Your task to perform on an android device: Clear all items from cart on ebay. Search for "asus rog" on ebay, select the first entry, and add it to the cart. Image 0: 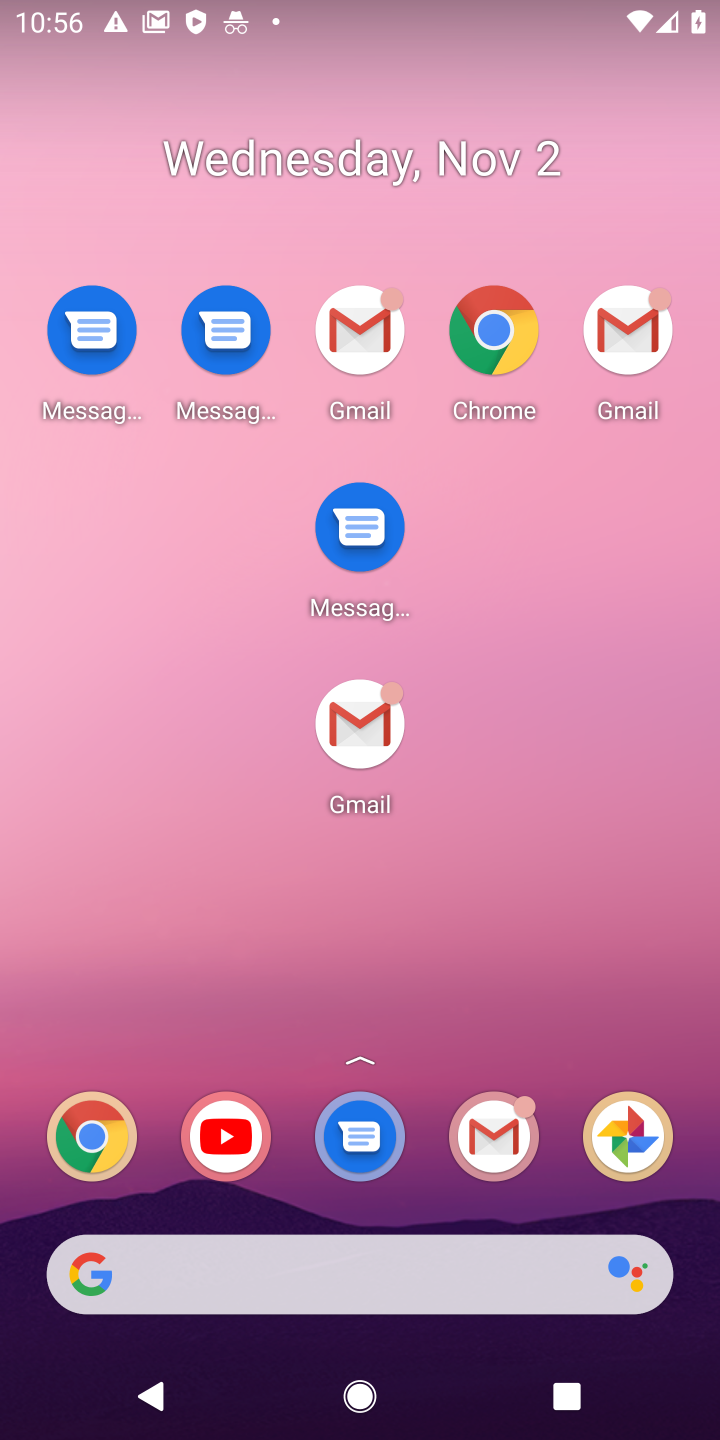
Step 0: drag from (278, 670) to (273, 462)
Your task to perform on an android device: Clear all items from cart on ebay. Search for "asus rog" on ebay, select the first entry, and add it to the cart. Image 1: 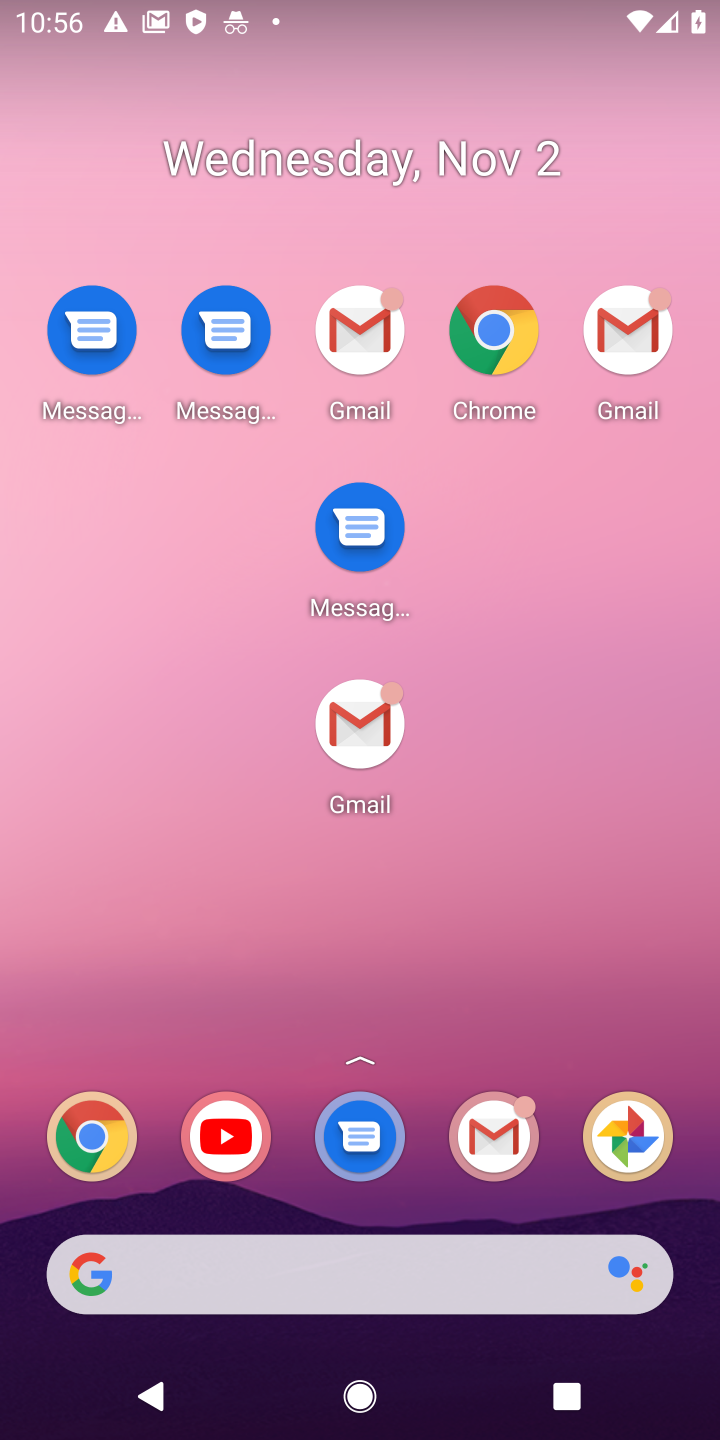
Step 1: drag from (425, 1279) to (442, 525)
Your task to perform on an android device: Clear all items from cart on ebay. Search for "asus rog" on ebay, select the first entry, and add it to the cart. Image 2: 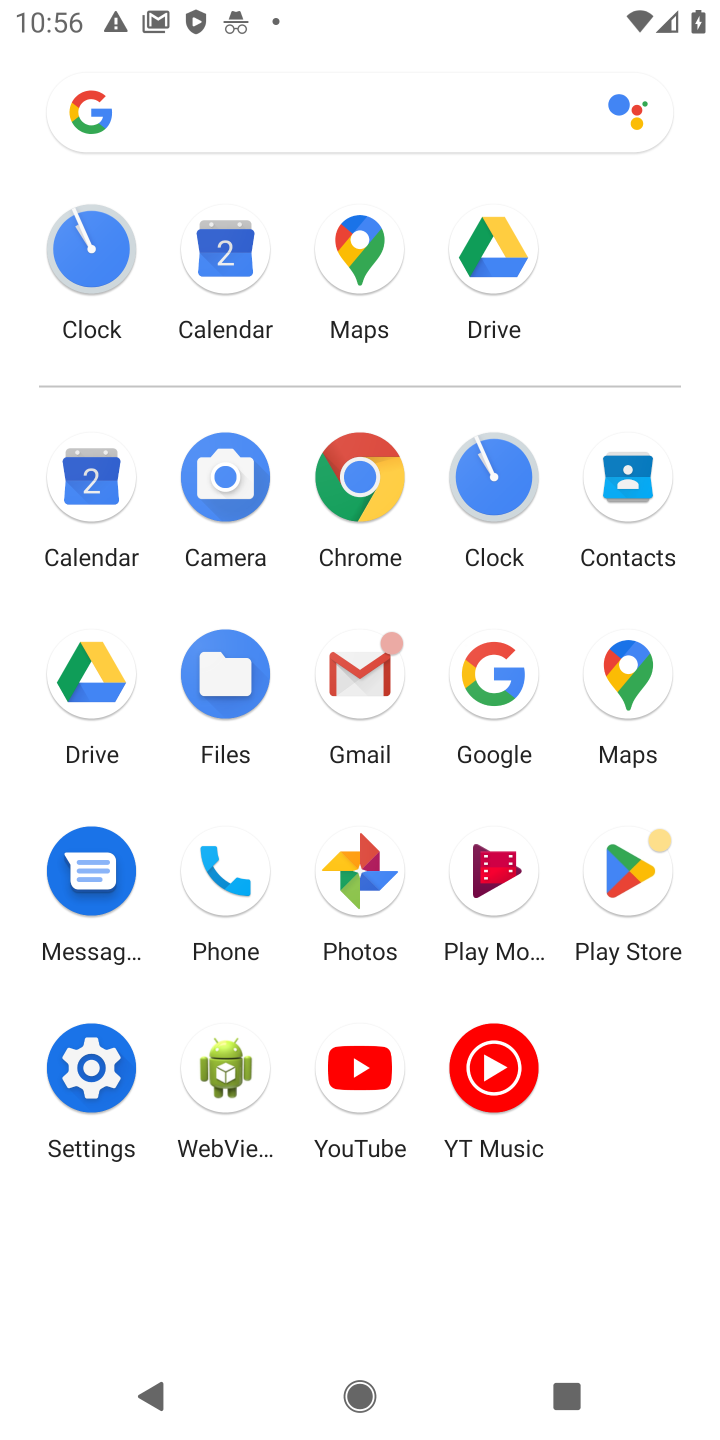
Step 2: click (471, 672)
Your task to perform on an android device: Clear all items from cart on ebay. Search for "asus rog" on ebay, select the first entry, and add it to the cart. Image 3: 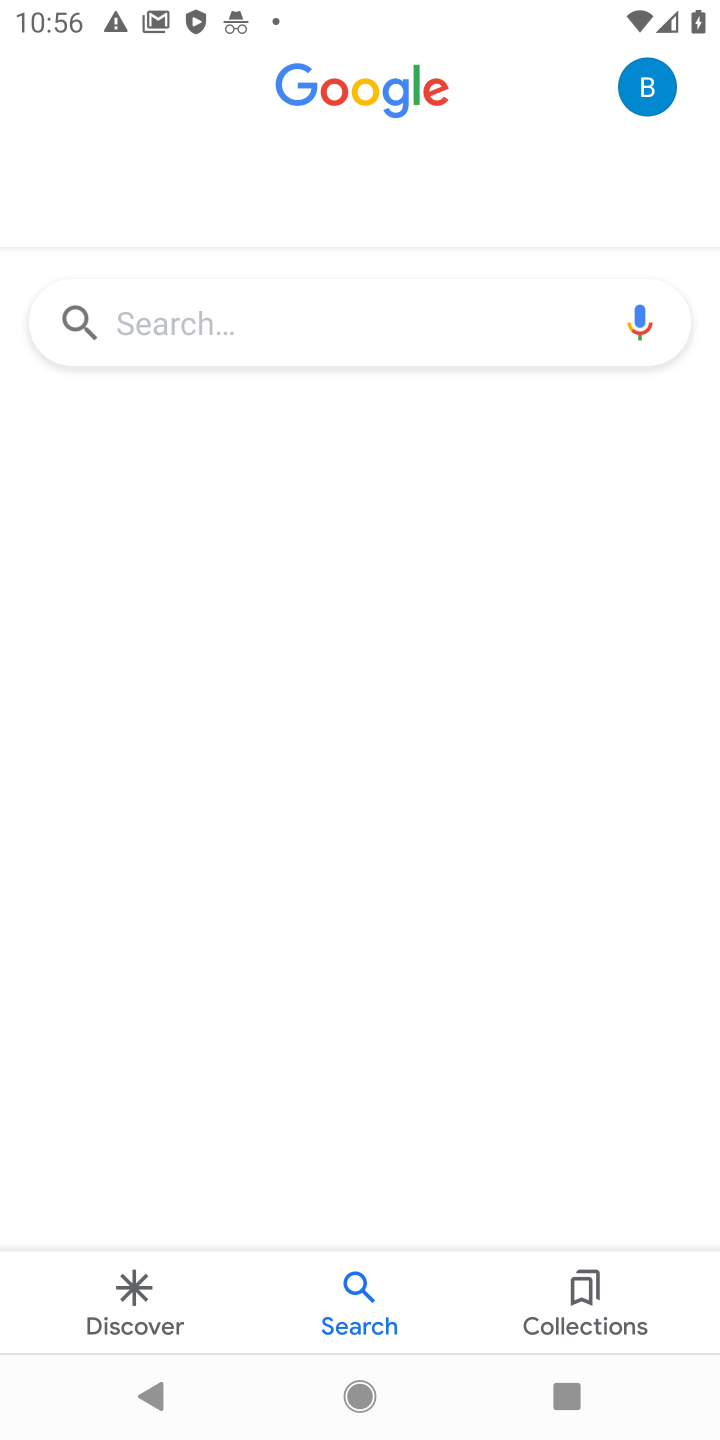
Step 3: click (284, 328)
Your task to perform on an android device: Clear all items from cart on ebay. Search for "asus rog" on ebay, select the first entry, and add it to the cart. Image 4: 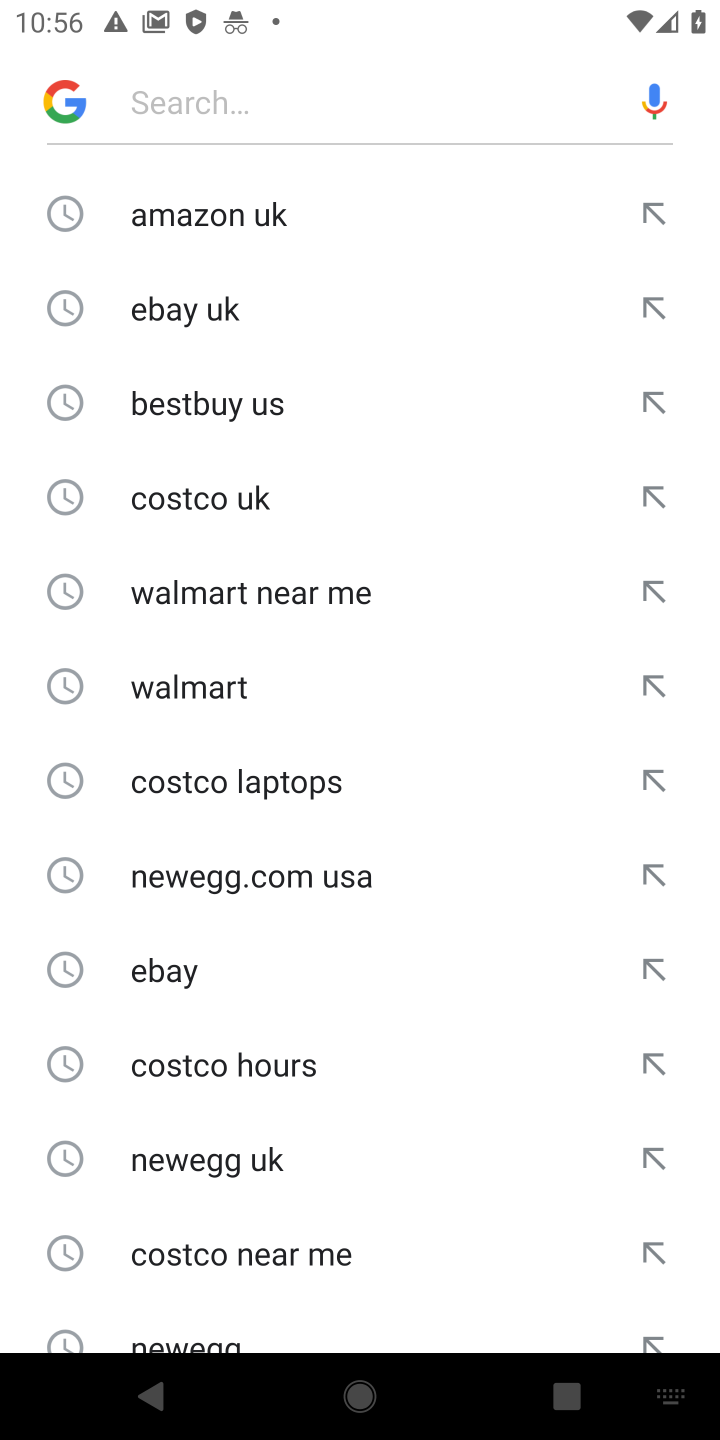
Step 4: click (155, 286)
Your task to perform on an android device: Clear all items from cart on ebay. Search for "asus rog" on ebay, select the first entry, and add it to the cart. Image 5: 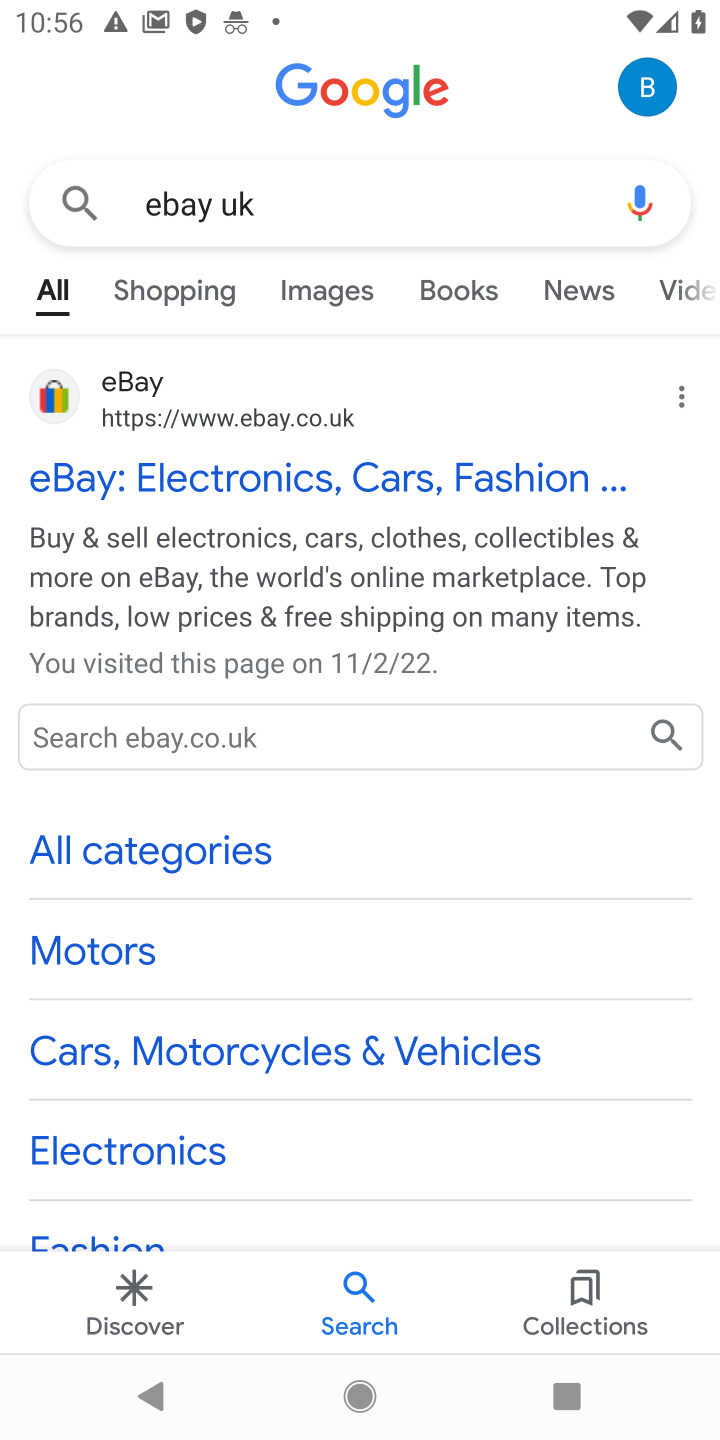
Step 5: click (45, 387)
Your task to perform on an android device: Clear all items from cart on ebay. Search for "asus rog" on ebay, select the first entry, and add it to the cart. Image 6: 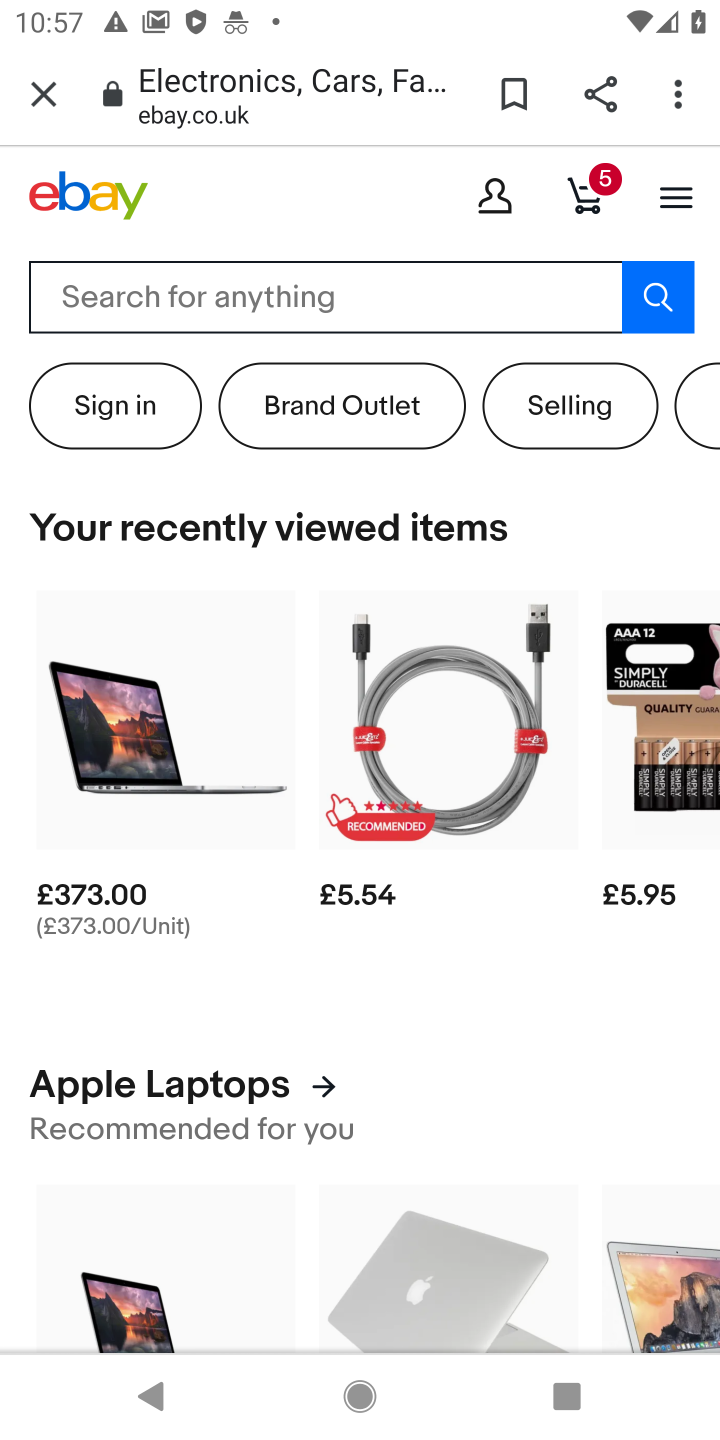
Step 6: click (357, 279)
Your task to perform on an android device: Clear all items from cart on ebay. Search for "asus rog" on ebay, select the first entry, and add it to the cart. Image 7: 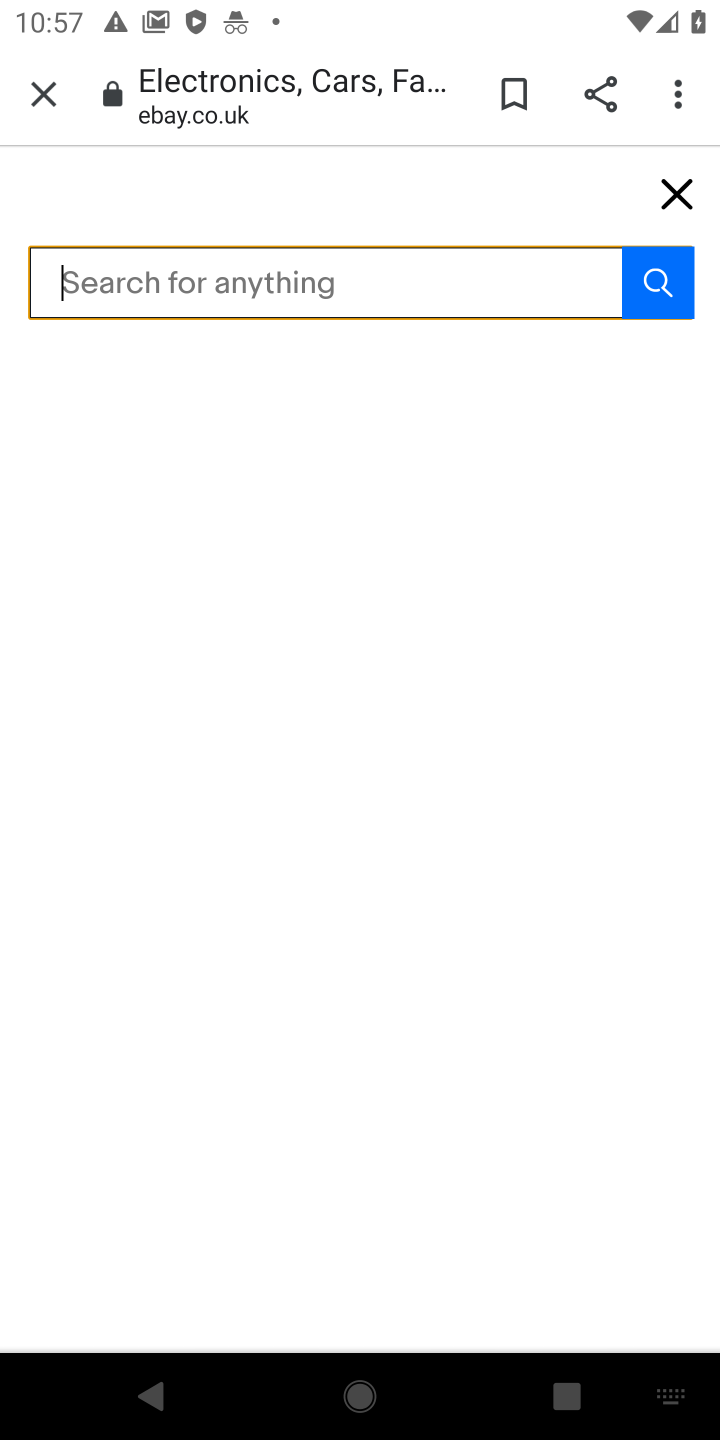
Step 7: type "asus rog "
Your task to perform on an android device: Clear all items from cart on ebay. Search for "asus rog" on ebay, select the first entry, and add it to the cart. Image 8: 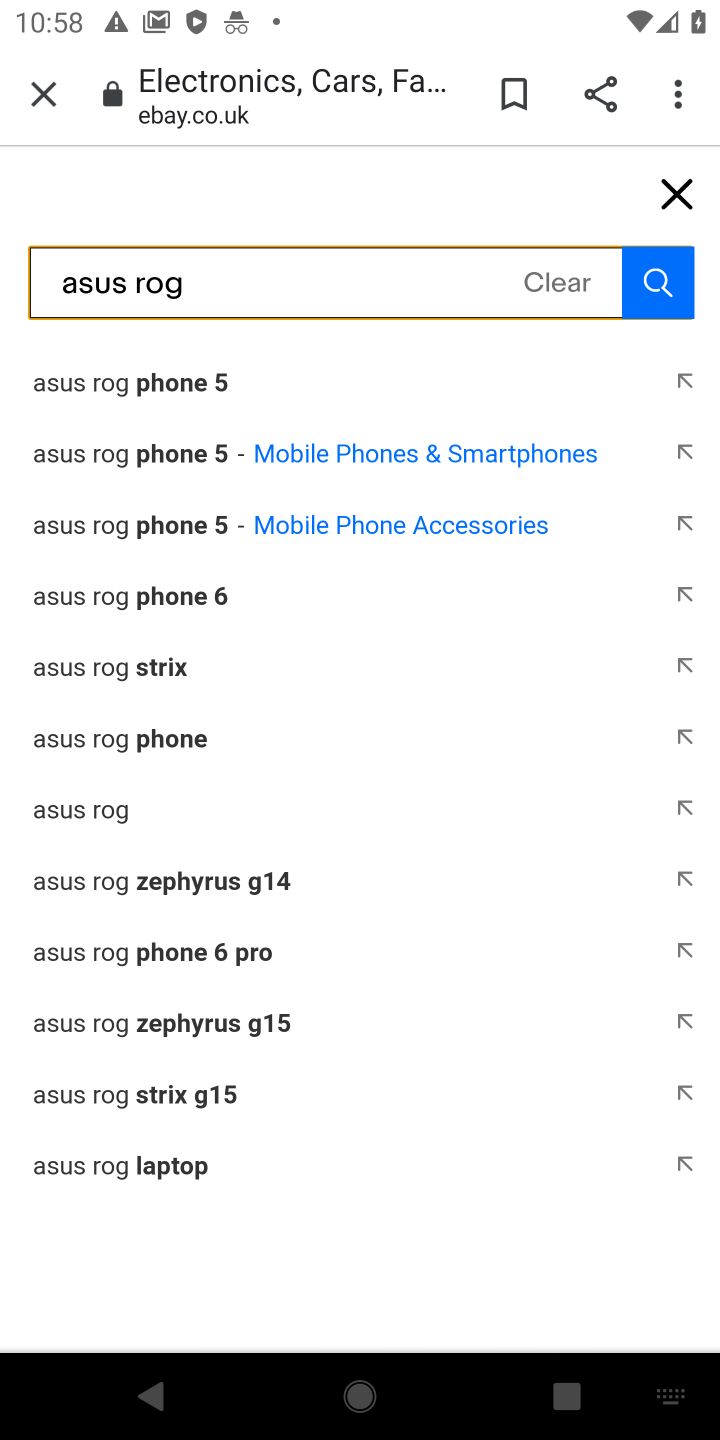
Step 8: click (135, 367)
Your task to perform on an android device: Clear all items from cart on ebay. Search for "asus rog" on ebay, select the first entry, and add it to the cart. Image 9: 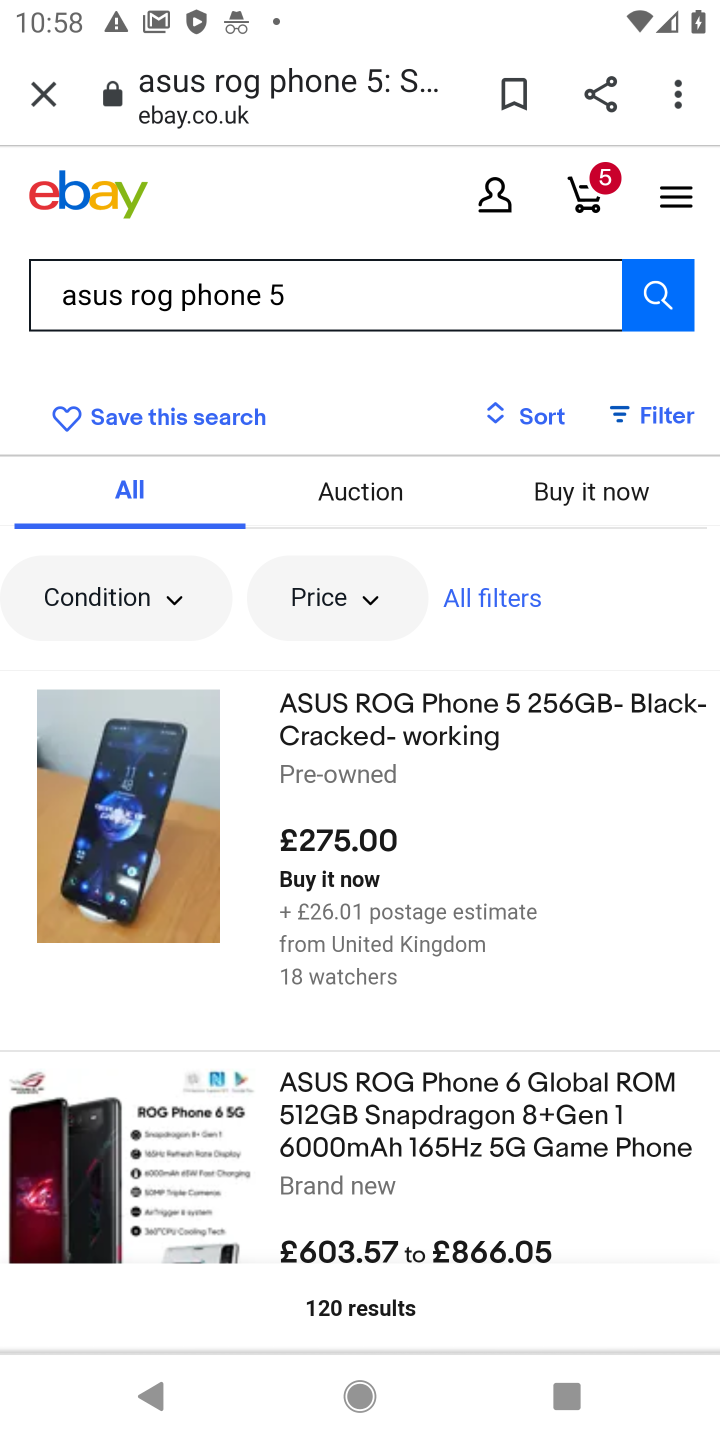
Step 9: drag from (471, 1123) to (471, 726)
Your task to perform on an android device: Clear all items from cart on ebay. Search for "asus rog" on ebay, select the first entry, and add it to the cart. Image 10: 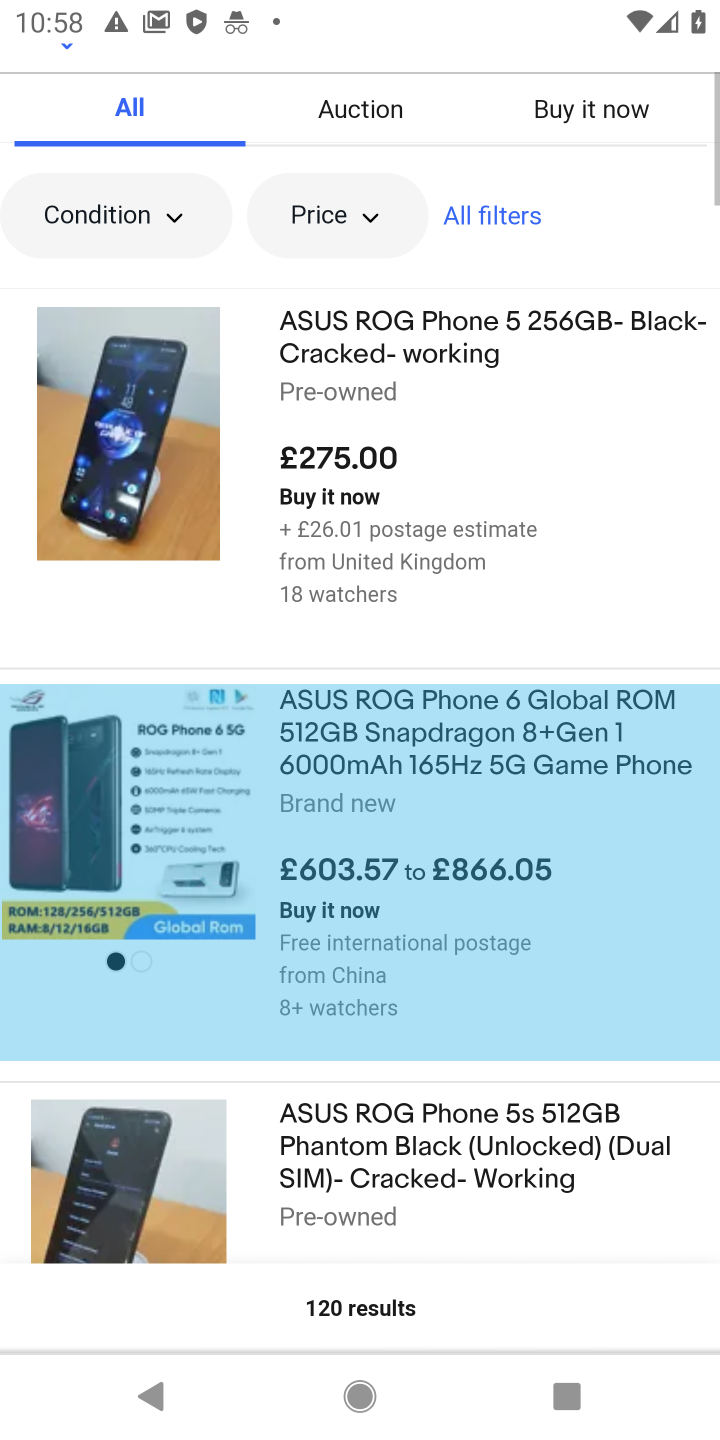
Step 10: click (375, 273)
Your task to perform on an android device: Clear all items from cart on ebay. Search for "asus rog" on ebay, select the first entry, and add it to the cart. Image 11: 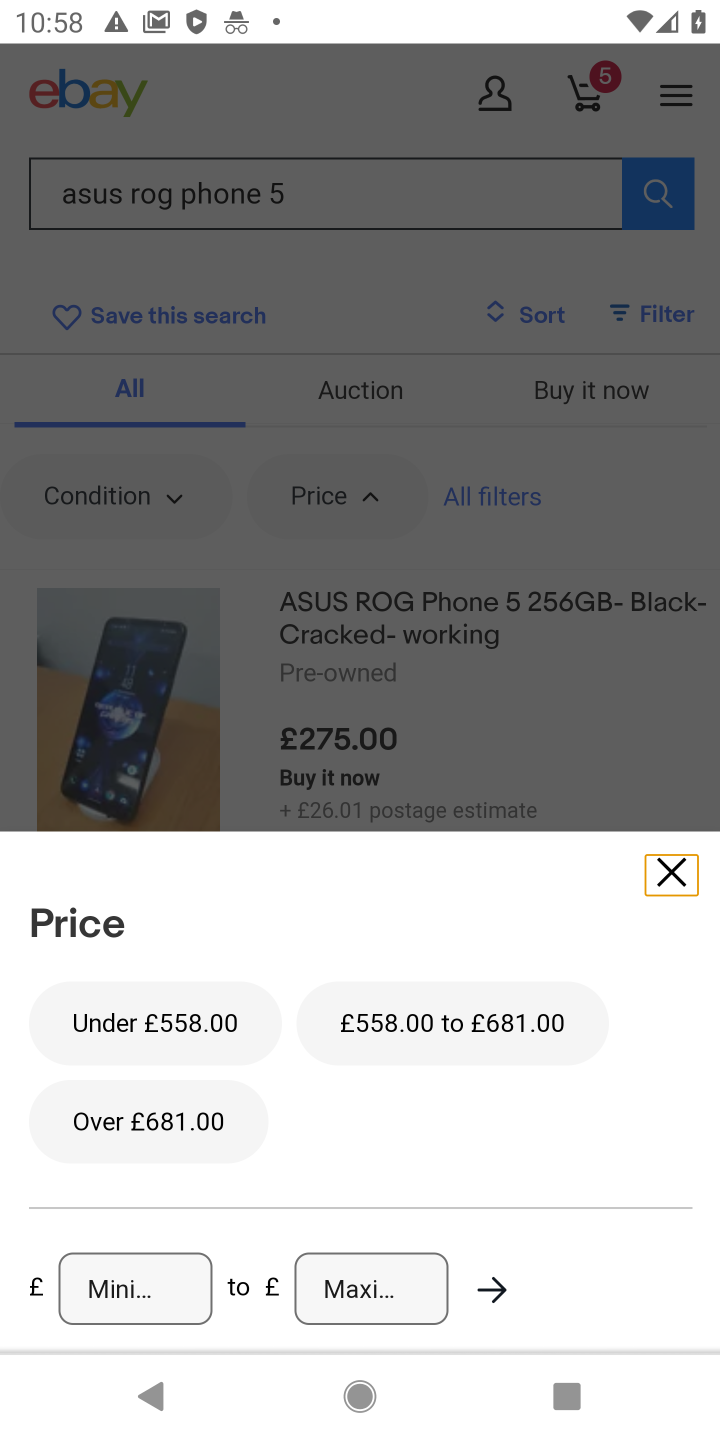
Step 11: click (667, 875)
Your task to perform on an android device: Clear all items from cart on ebay. Search for "asus rog" on ebay, select the first entry, and add it to the cart. Image 12: 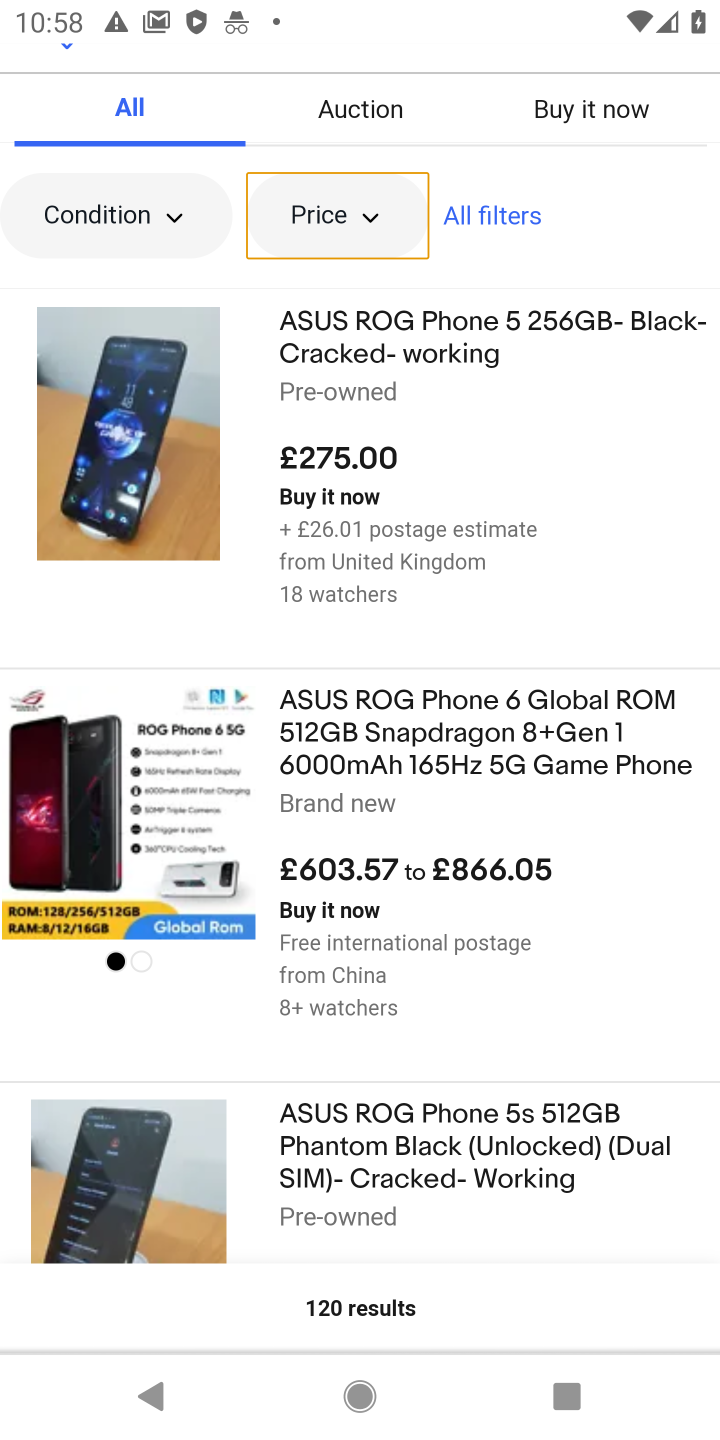
Step 12: click (518, 332)
Your task to perform on an android device: Clear all items from cart on ebay. Search for "asus rog" on ebay, select the first entry, and add it to the cart. Image 13: 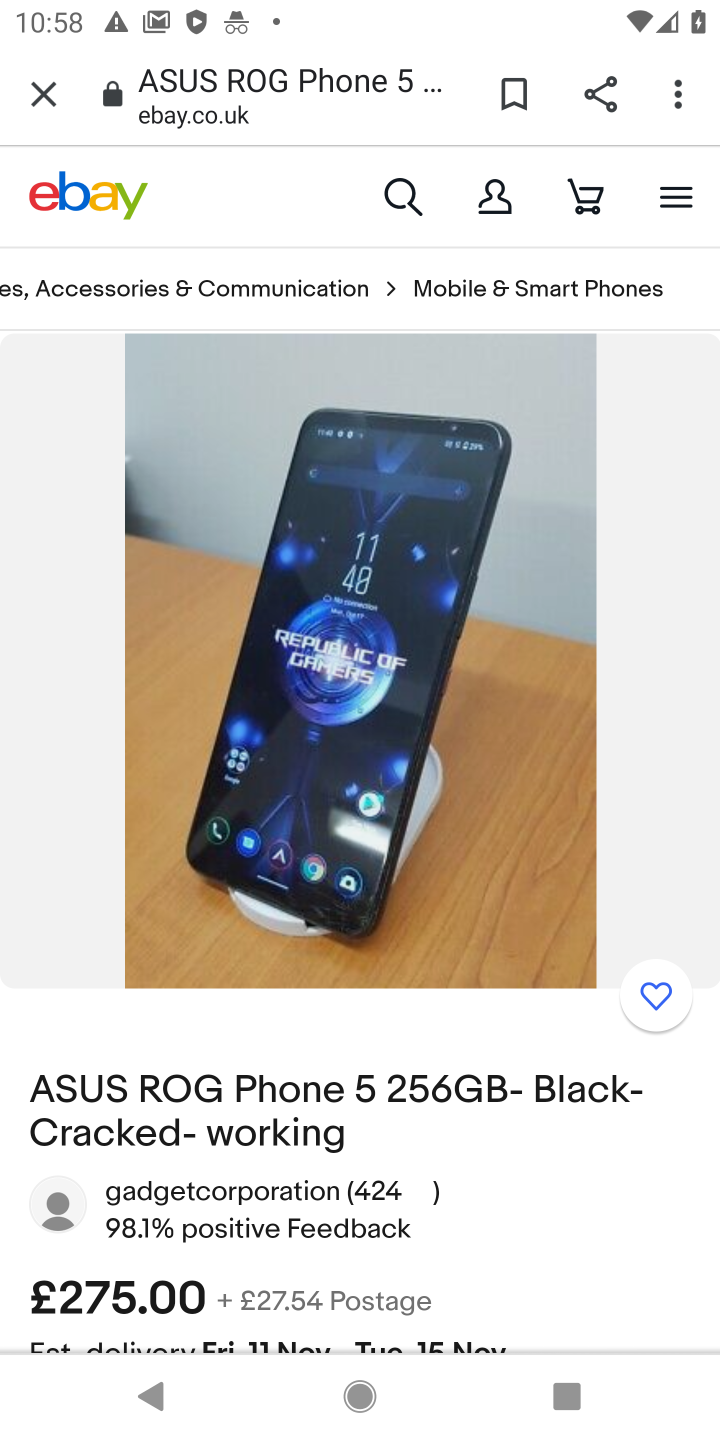
Step 13: drag from (481, 1144) to (494, 558)
Your task to perform on an android device: Clear all items from cart on ebay. Search for "asus rog" on ebay, select the first entry, and add it to the cart. Image 14: 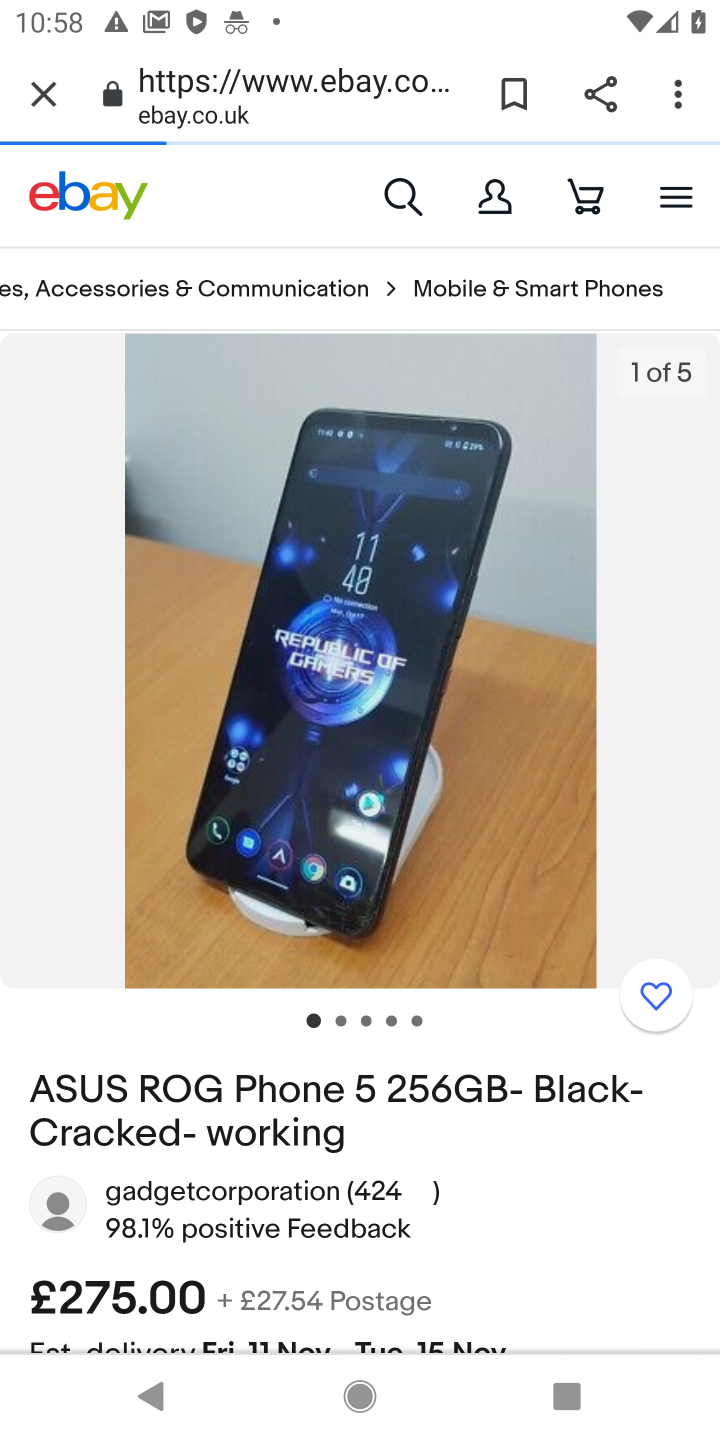
Step 14: drag from (390, 878) to (427, 358)
Your task to perform on an android device: Clear all items from cart on ebay. Search for "asus rog" on ebay, select the first entry, and add it to the cart. Image 15: 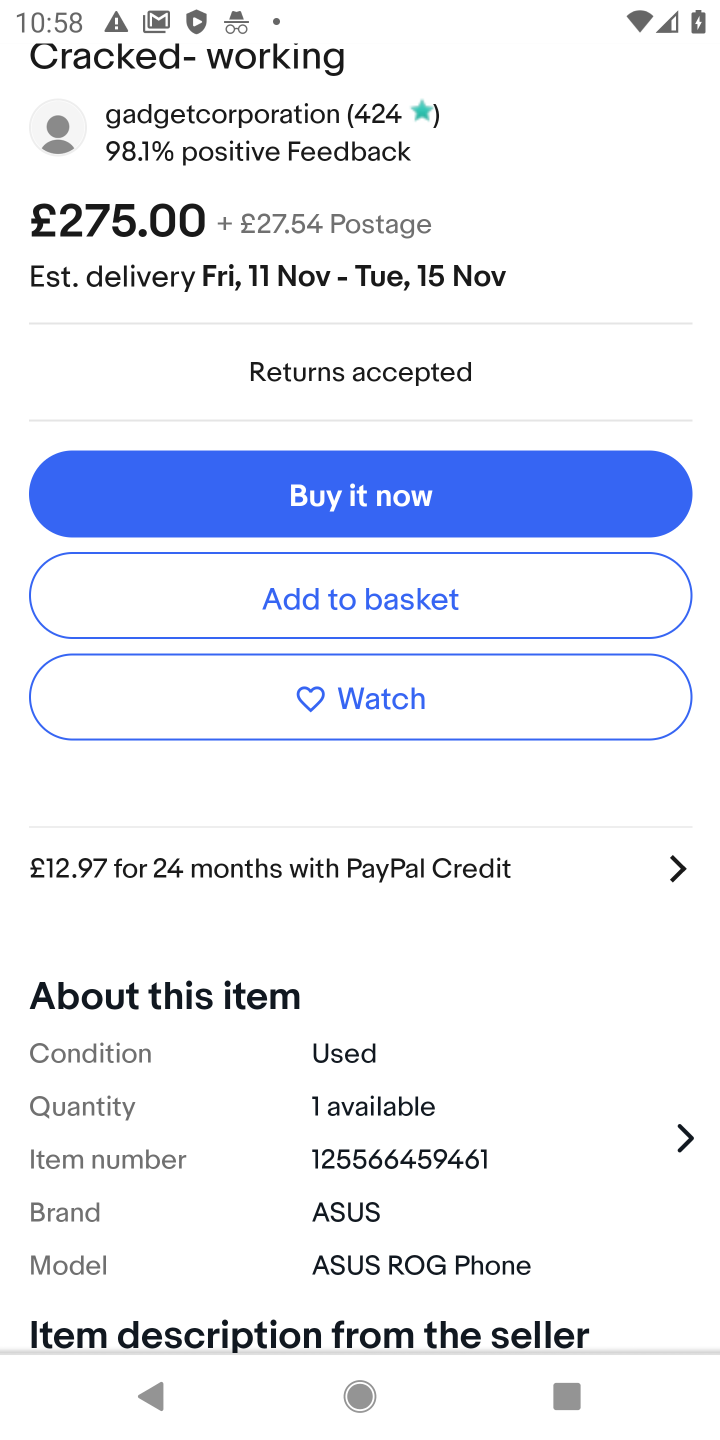
Step 15: click (389, 585)
Your task to perform on an android device: Clear all items from cart on ebay. Search for "asus rog" on ebay, select the first entry, and add it to the cart. Image 16: 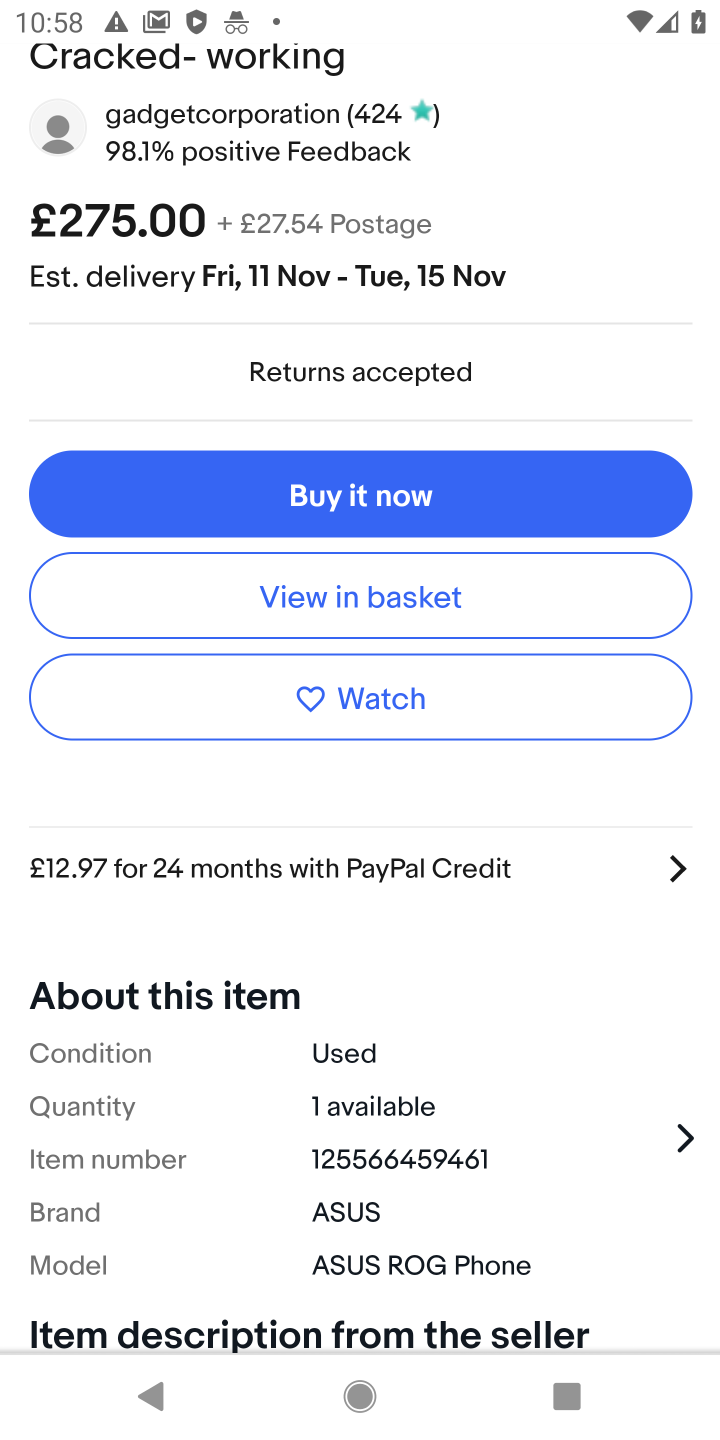
Step 16: task complete